Your task to perform on an android device: toggle translation in the chrome app Image 0: 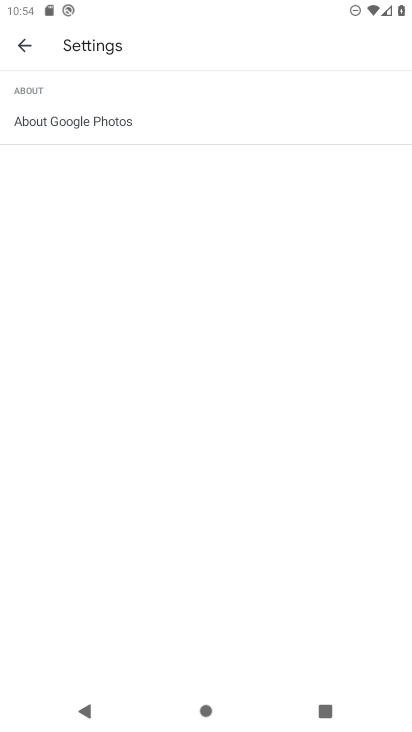
Step 0: click (188, 461)
Your task to perform on an android device: toggle translation in the chrome app Image 1: 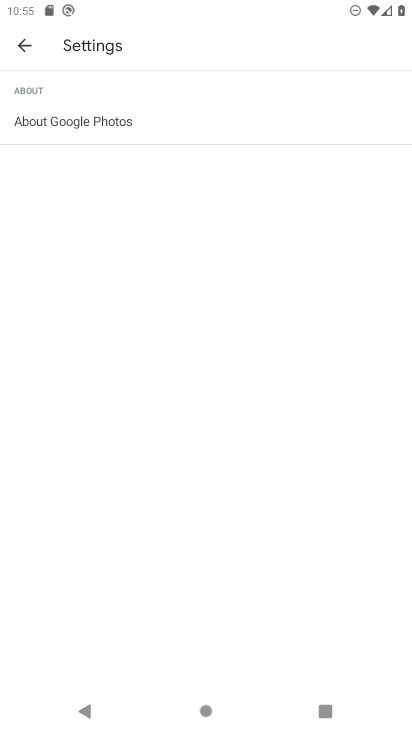
Step 1: press home button
Your task to perform on an android device: toggle translation in the chrome app Image 2: 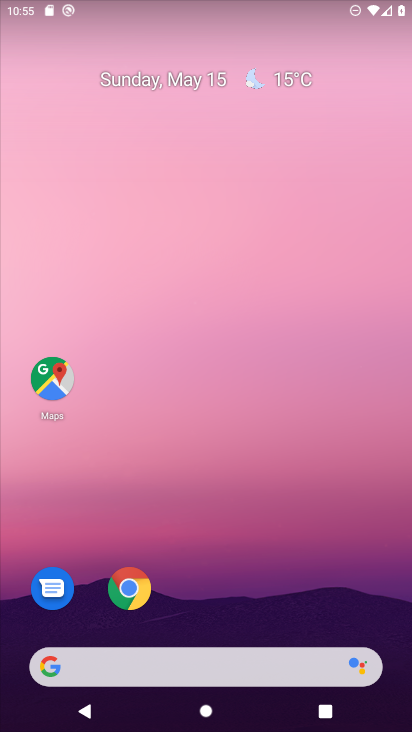
Step 2: click (138, 590)
Your task to perform on an android device: toggle translation in the chrome app Image 3: 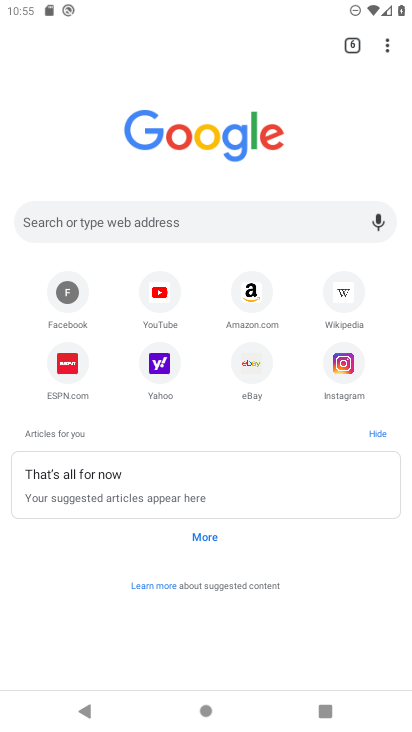
Step 3: click (391, 52)
Your task to perform on an android device: toggle translation in the chrome app Image 4: 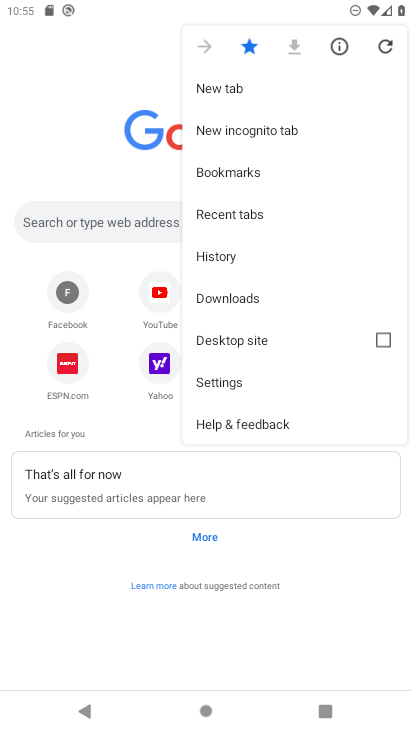
Step 4: click (220, 382)
Your task to perform on an android device: toggle translation in the chrome app Image 5: 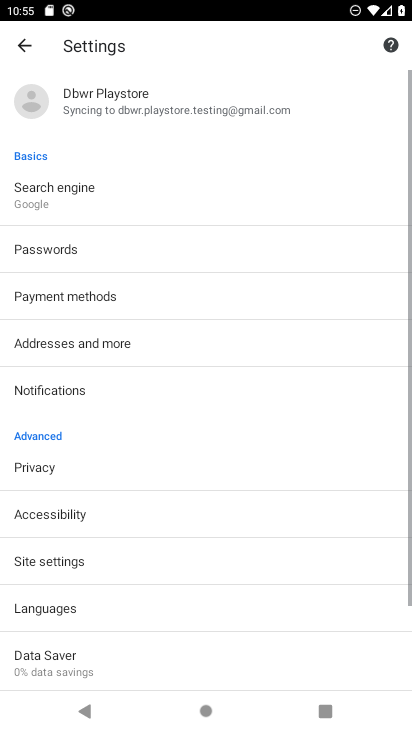
Step 5: drag from (85, 621) to (107, 429)
Your task to perform on an android device: toggle translation in the chrome app Image 6: 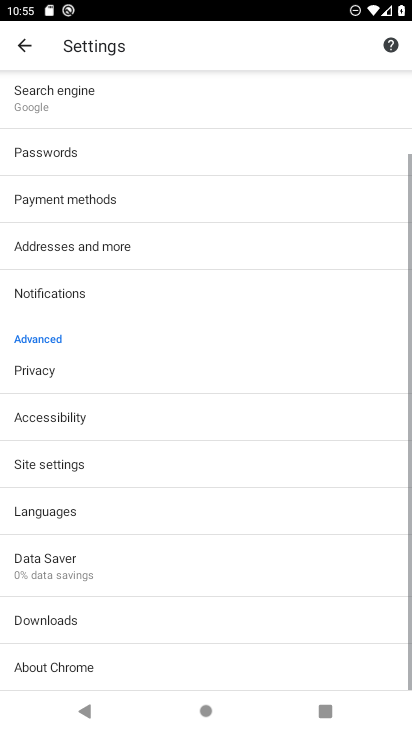
Step 6: click (43, 511)
Your task to perform on an android device: toggle translation in the chrome app Image 7: 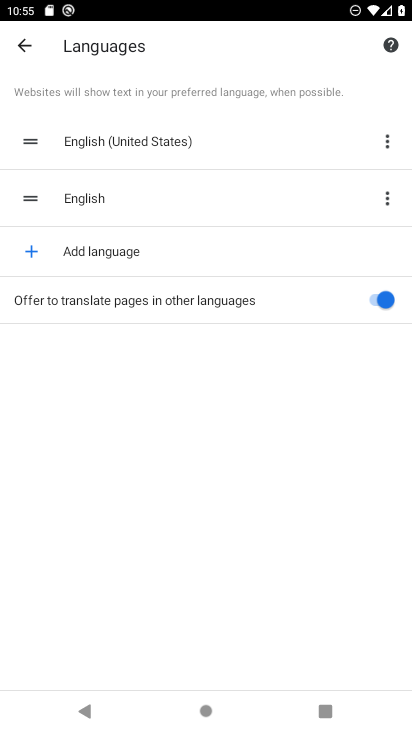
Step 7: click (358, 306)
Your task to perform on an android device: toggle translation in the chrome app Image 8: 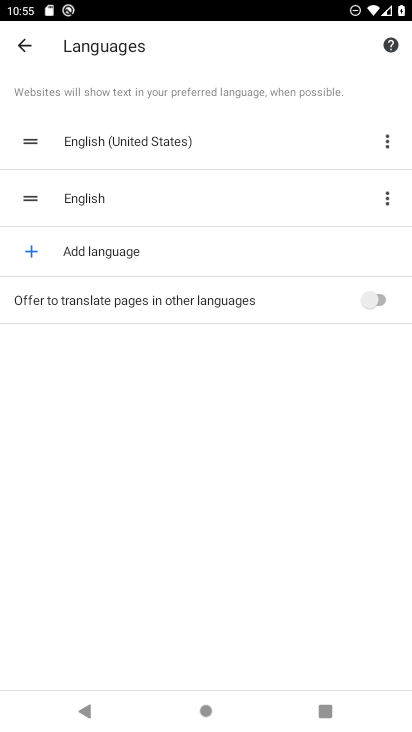
Step 8: task complete